Your task to perform on an android device: Open calendar and show me the fourth week of next month Image 0: 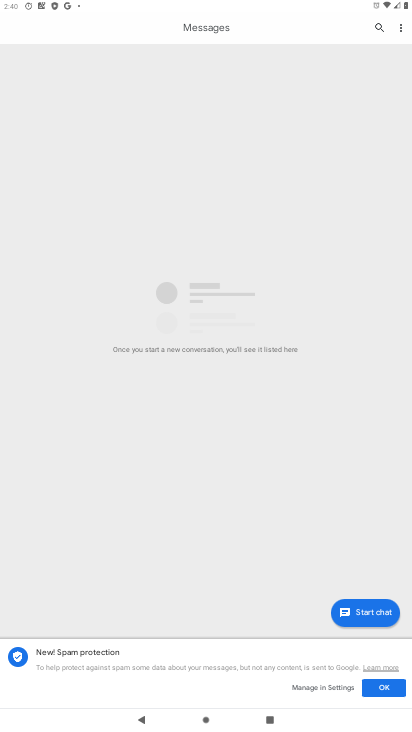
Step 0: press home button
Your task to perform on an android device: Open calendar and show me the fourth week of next month Image 1: 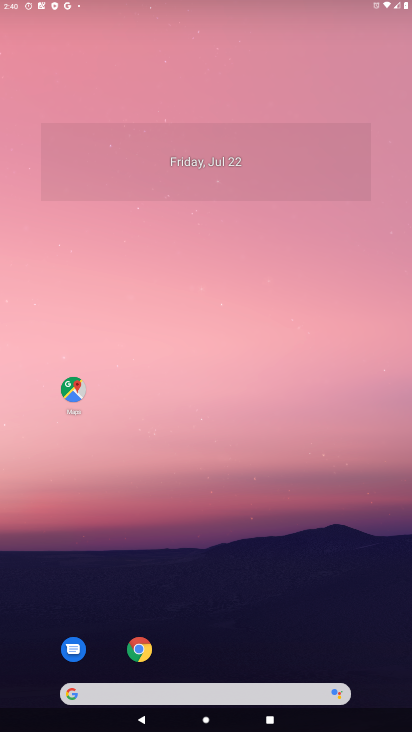
Step 1: drag from (285, 599) to (235, 14)
Your task to perform on an android device: Open calendar and show me the fourth week of next month Image 2: 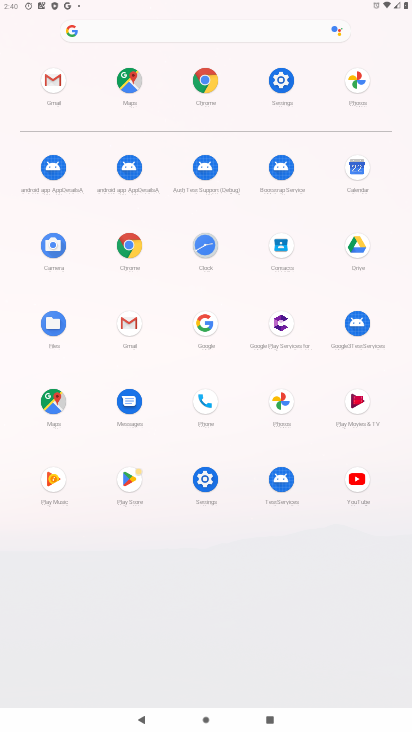
Step 2: click (352, 169)
Your task to perform on an android device: Open calendar and show me the fourth week of next month Image 3: 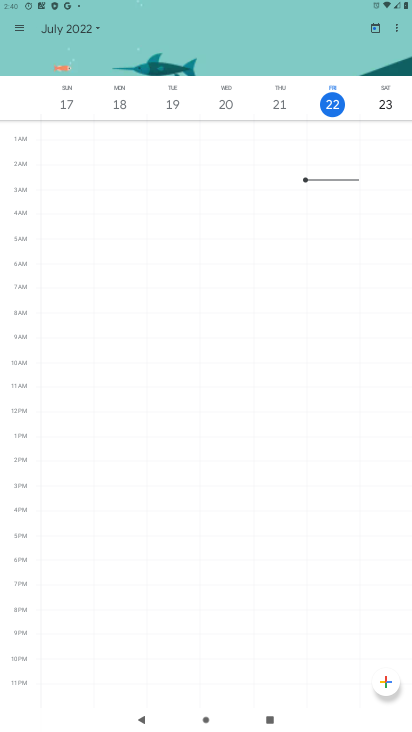
Step 3: click (89, 23)
Your task to perform on an android device: Open calendar and show me the fourth week of next month Image 4: 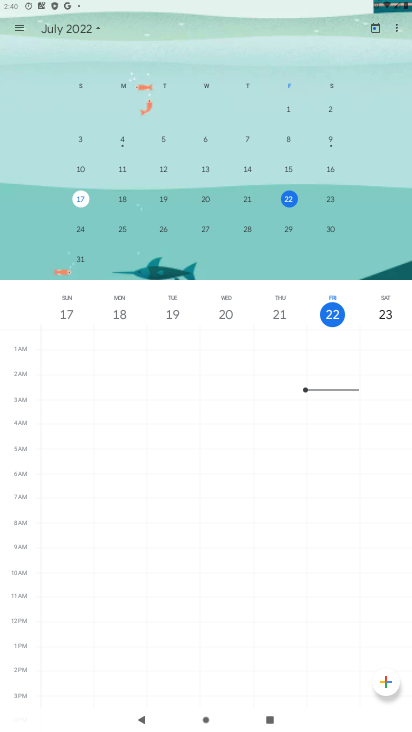
Step 4: drag from (350, 196) to (55, 173)
Your task to perform on an android device: Open calendar and show me the fourth week of next month Image 5: 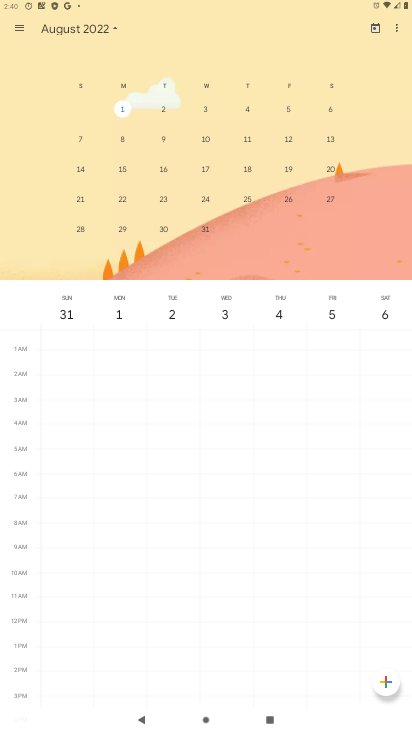
Step 5: click (123, 192)
Your task to perform on an android device: Open calendar and show me the fourth week of next month Image 6: 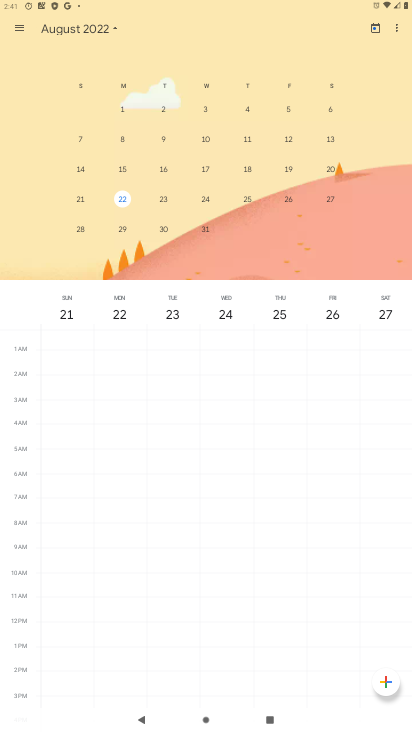
Step 6: task complete